Your task to perform on an android device: Search for "dell xps" on costco.com, select the first entry, add it to the cart, then select checkout. Image 0: 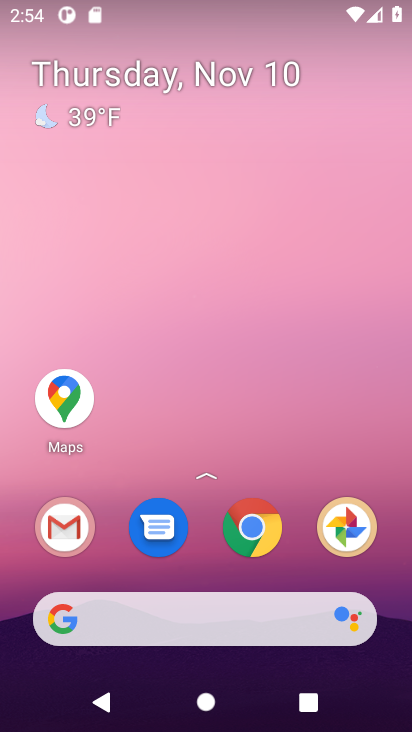
Step 0: drag from (134, 619) to (106, 48)
Your task to perform on an android device: Search for "dell xps" on costco.com, select the first entry, add it to the cart, then select checkout. Image 1: 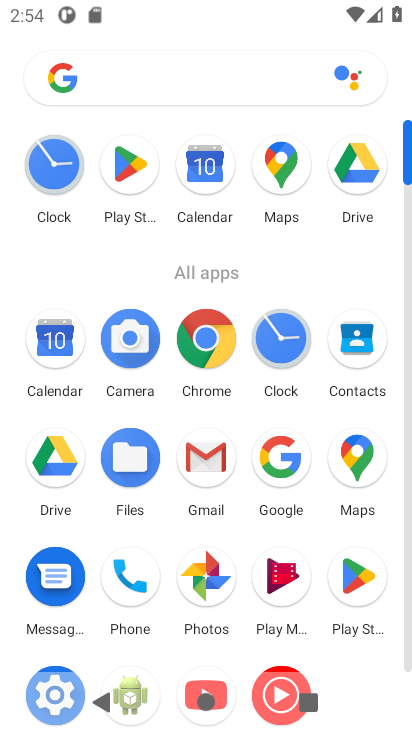
Step 1: click (218, 341)
Your task to perform on an android device: Search for "dell xps" on costco.com, select the first entry, add it to the cart, then select checkout. Image 2: 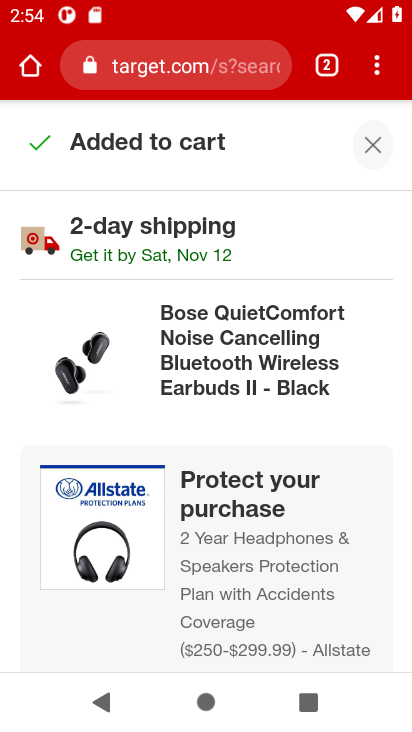
Step 2: click (185, 71)
Your task to perform on an android device: Search for "dell xps" on costco.com, select the first entry, add it to the cart, then select checkout. Image 3: 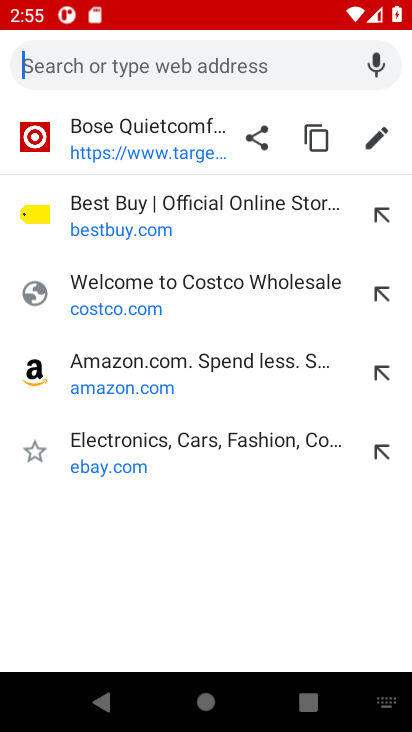
Step 3: type "costco.com"
Your task to perform on an android device: Search for "dell xps" on costco.com, select the first entry, add it to the cart, then select checkout. Image 4: 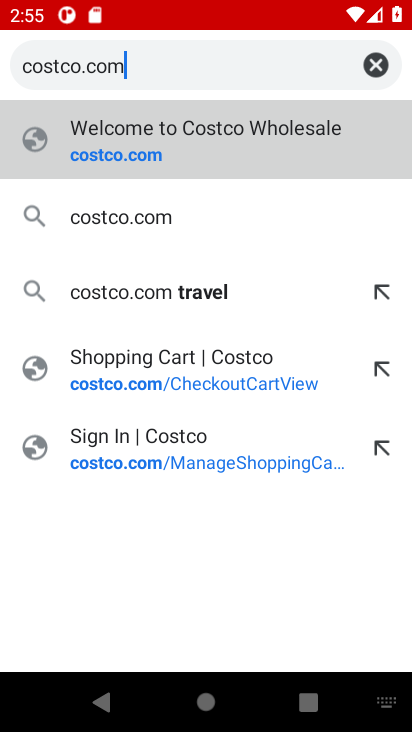
Step 4: press enter
Your task to perform on an android device: Search for "dell xps" on costco.com, select the first entry, add it to the cart, then select checkout. Image 5: 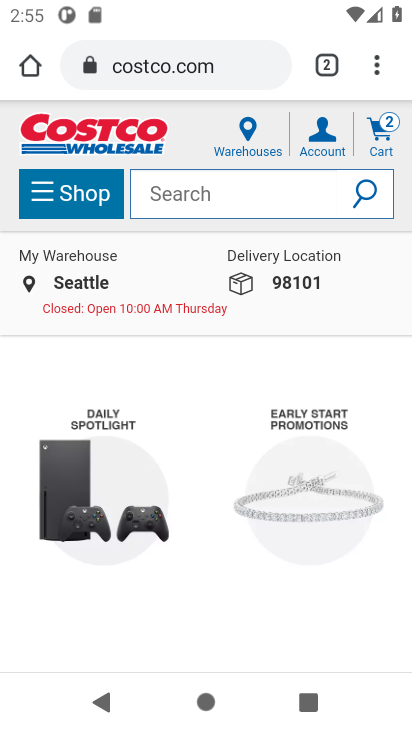
Step 5: drag from (211, 466) to (190, 255)
Your task to perform on an android device: Search for "dell xps" on costco.com, select the first entry, add it to the cart, then select checkout. Image 6: 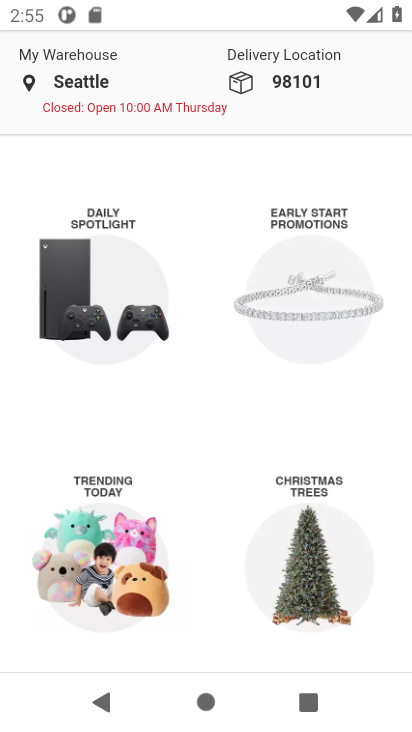
Step 6: drag from (200, 181) to (270, 436)
Your task to perform on an android device: Search for "dell xps" on costco.com, select the first entry, add it to the cart, then select checkout. Image 7: 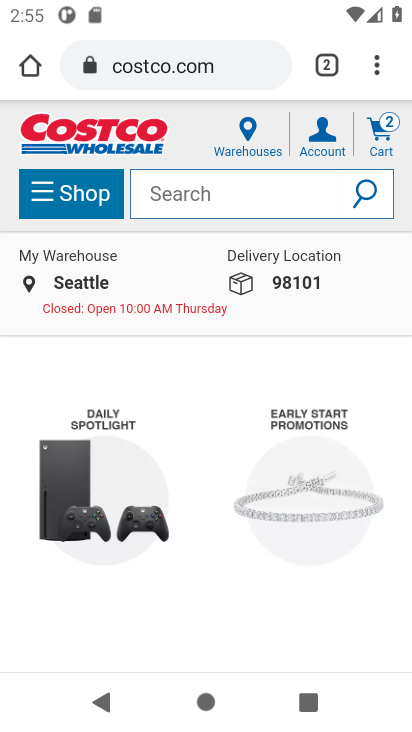
Step 7: click (217, 173)
Your task to perform on an android device: Search for "dell xps" on costco.com, select the first entry, add it to the cart, then select checkout. Image 8: 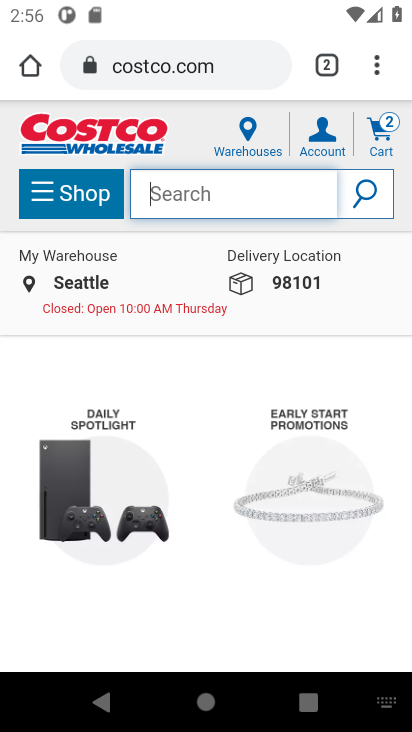
Step 8: type "costco.com"
Your task to perform on an android device: Search for "dell xps" on costco.com, select the first entry, add it to the cart, then select checkout. Image 9: 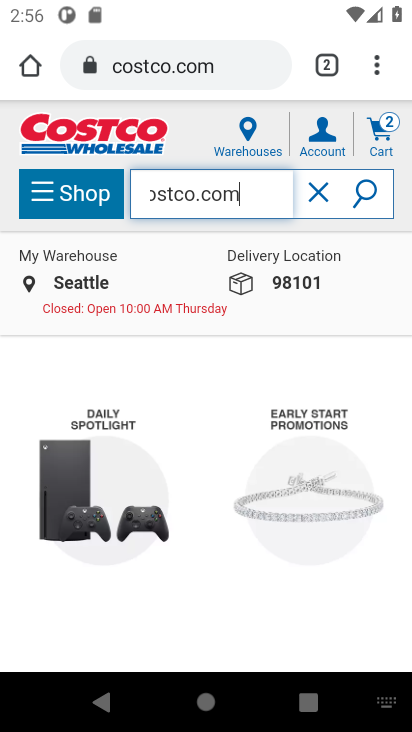
Step 9: press enter
Your task to perform on an android device: Search for "dell xps" on costco.com, select the first entry, add it to the cart, then select checkout. Image 10: 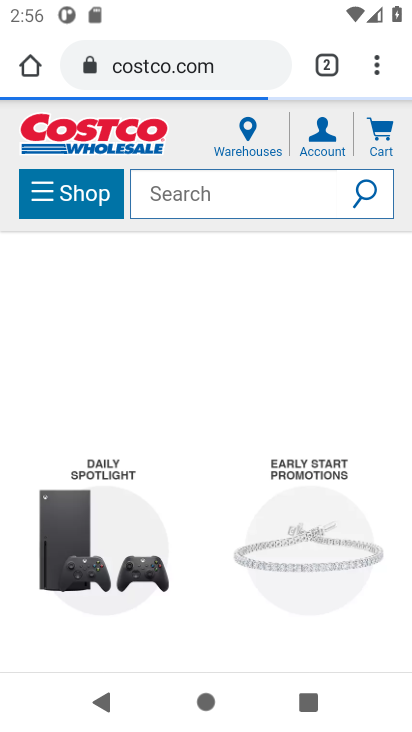
Step 10: click (243, 198)
Your task to perform on an android device: Search for "dell xps" on costco.com, select the first entry, add it to the cart, then select checkout. Image 11: 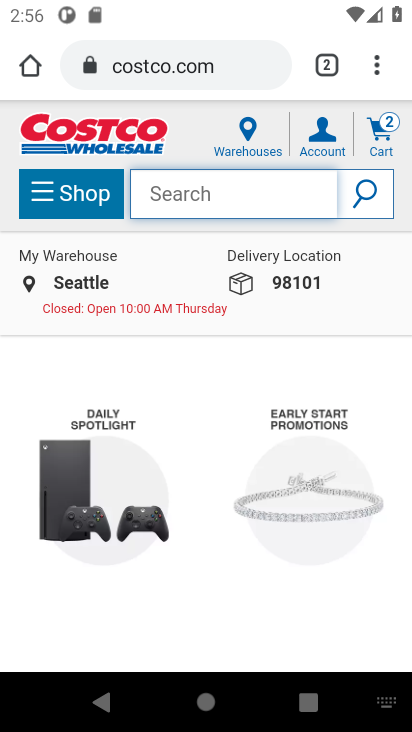
Step 11: type "dell xps"
Your task to perform on an android device: Search for "dell xps" on costco.com, select the first entry, add it to the cart, then select checkout. Image 12: 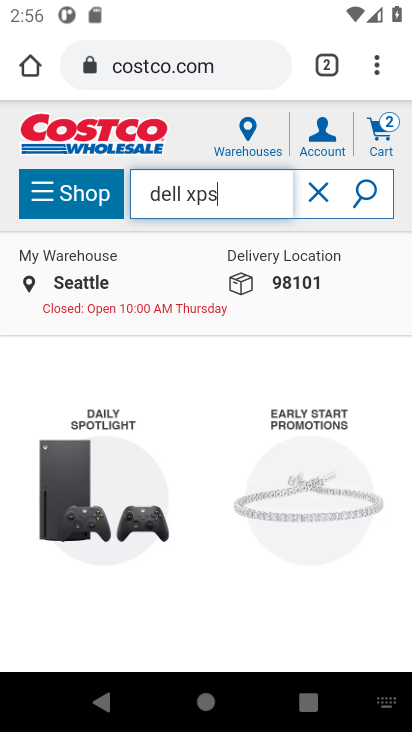
Step 12: press enter
Your task to perform on an android device: Search for "dell xps" on costco.com, select the first entry, add it to the cart, then select checkout. Image 13: 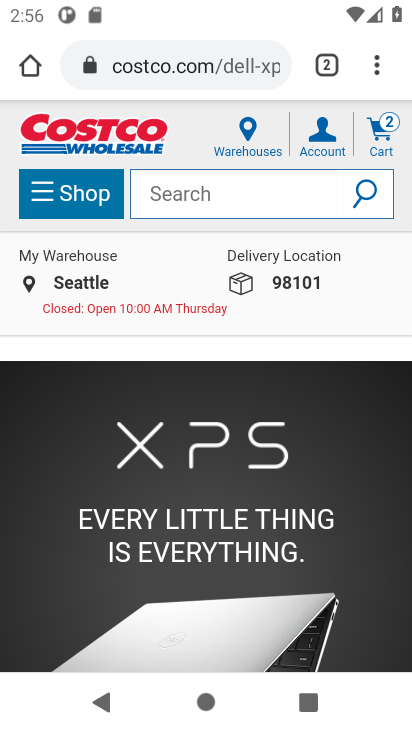
Step 13: drag from (252, 544) to (260, 237)
Your task to perform on an android device: Search for "dell xps" on costco.com, select the first entry, add it to the cart, then select checkout. Image 14: 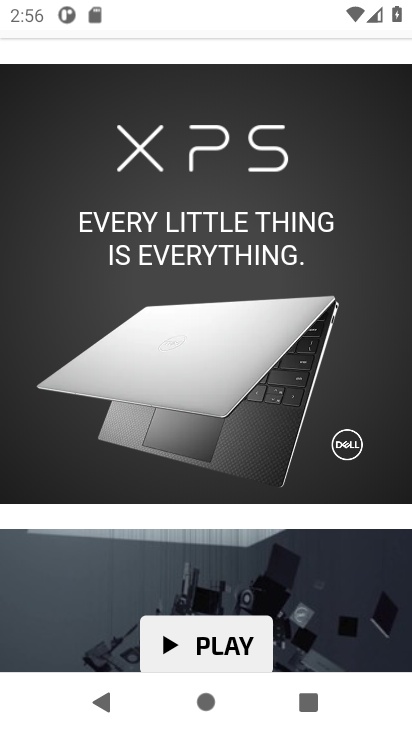
Step 14: click (253, 259)
Your task to perform on an android device: Search for "dell xps" on costco.com, select the first entry, add it to the cart, then select checkout. Image 15: 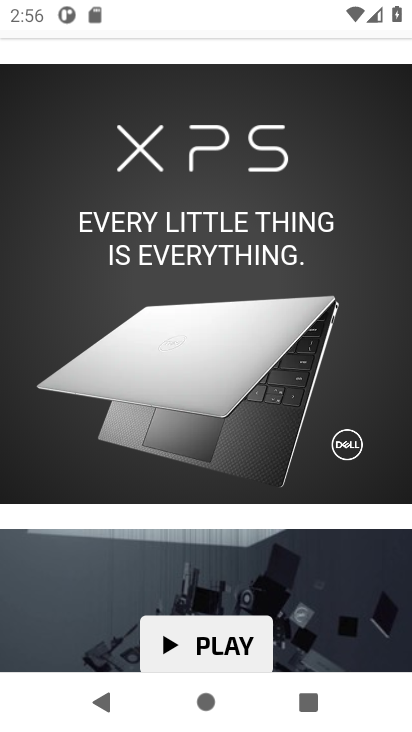
Step 15: click (250, 240)
Your task to perform on an android device: Search for "dell xps" on costco.com, select the first entry, add it to the cart, then select checkout. Image 16: 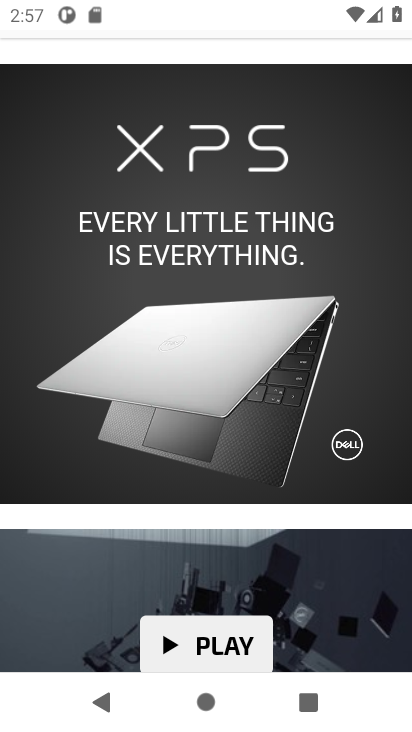
Step 16: click (250, 253)
Your task to perform on an android device: Search for "dell xps" on costco.com, select the first entry, add it to the cart, then select checkout. Image 17: 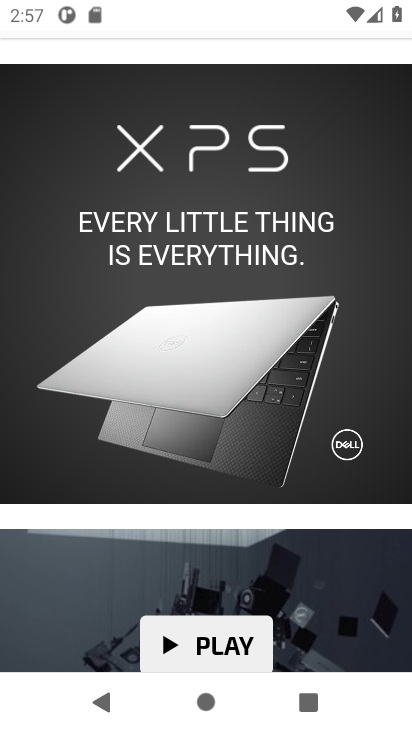
Step 17: click (250, 253)
Your task to perform on an android device: Search for "dell xps" on costco.com, select the first entry, add it to the cart, then select checkout. Image 18: 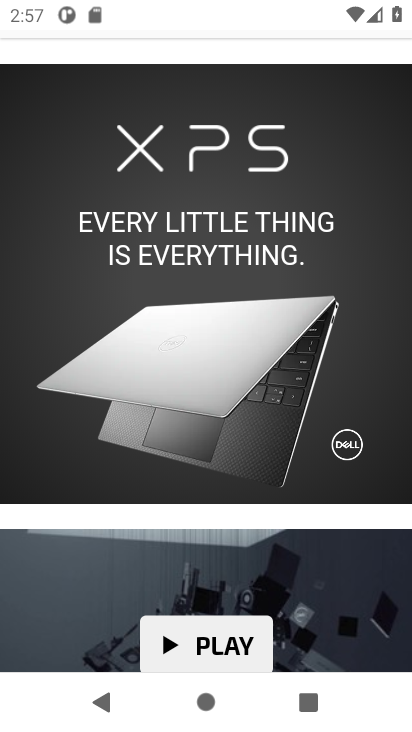
Step 18: click (168, 251)
Your task to perform on an android device: Search for "dell xps" on costco.com, select the first entry, add it to the cart, then select checkout. Image 19: 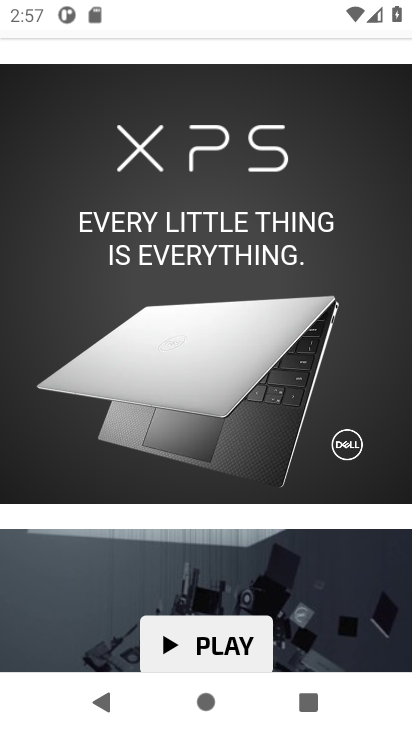
Step 19: drag from (277, 554) to (240, 172)
Your task to perform on an android device: Search for "dell xps" on costco.com, select the first entry, add it to the cart, then select checkout. Image 20: 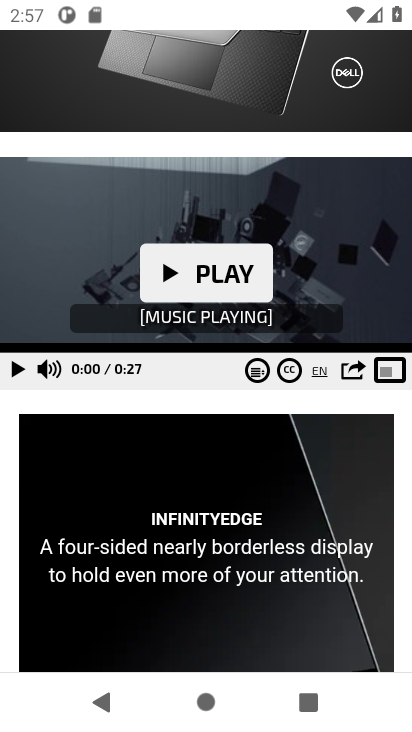
Step 20: drag from (259, 449) to (263, 127)
Your task to perform on an android device: Search for "dell xps" on costco.com, select the first entry, add it to the cart, then select checkout. Image 21: 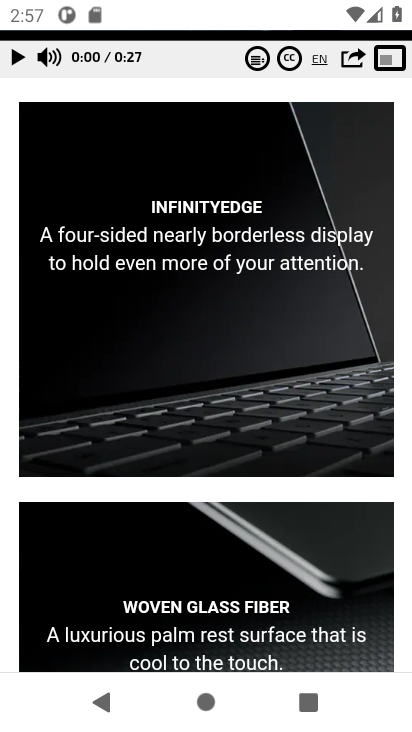
Step 21: drag from (267, 474) to (272, 127)
Your task to perform on an android device: Search for "dell xps" on costco.com, select the first entry, add it to the cart, then select checkout. Image 22: 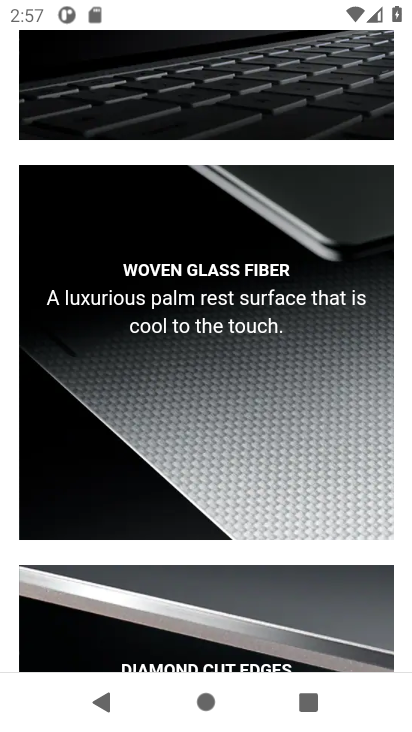
Step 22: drag from (211, 463) to (218, 123)
Your task to perform on an android device: Search for "dell xps" on costco.com, select the first entry, add it to the cart, then select checkout. Image 23: 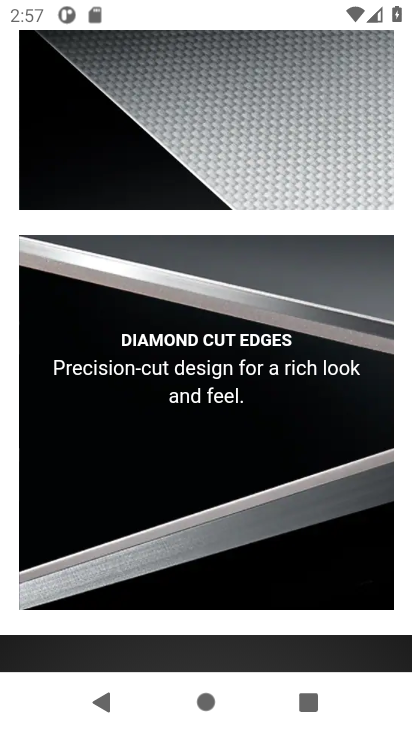
Step 23: drag from (155, 550) to (197, 134)
Your task to perform on an android device: Search for "dell xps" on costco.com, select the first entry, add it to the cart, then select checkout. Image 24: 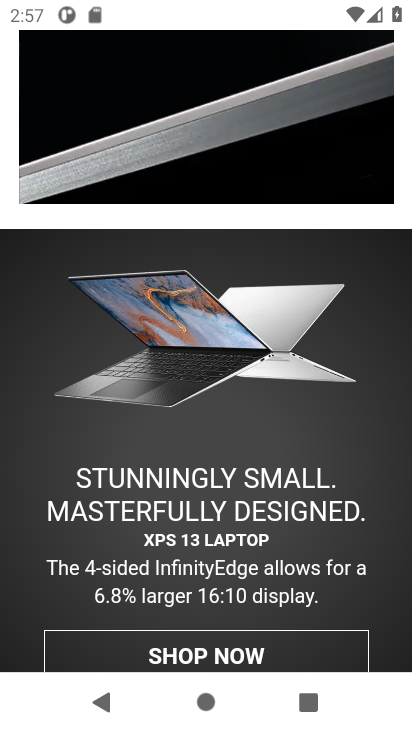
Step 24: drag from (206, 527) to (202, 204)
Your task to perform on an android device: Search for "dell xps" on costco.com, select the first entry, add it to the cart, then select checkout. Image 25: 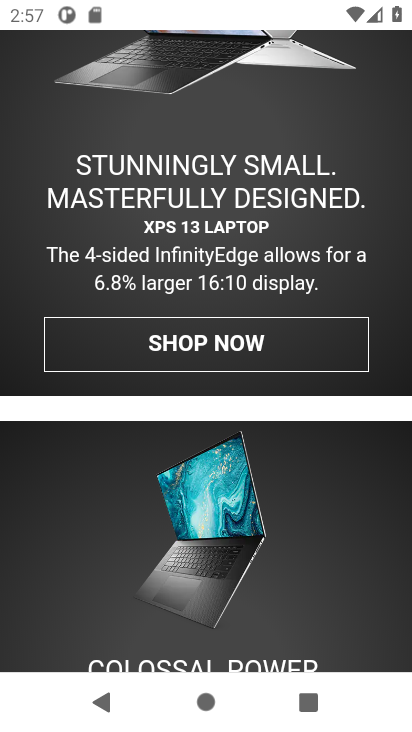
Step 25: click (161, 358)
Your task to perform on an android device: Search for "dell xps" on costco.com, select the first entry, add it to the cart, then select checkout. Image 26: 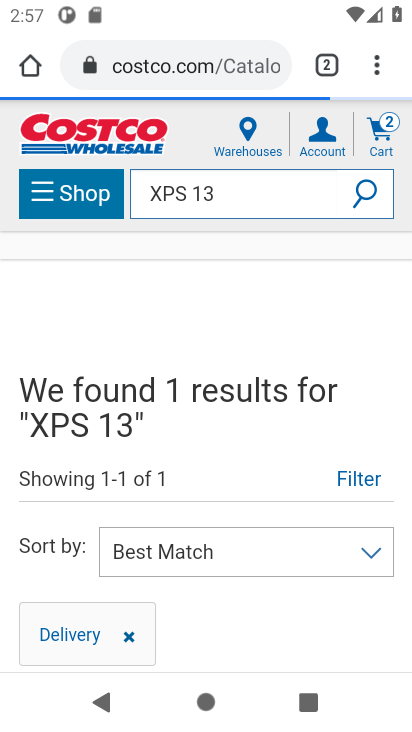
Step 26: drag from (241, 554) to (225, 258)
Your task to perform on an android device: Search for "dell xps" on costco.com, select the first entry, add it to the cart, then select checkout. Image 27: 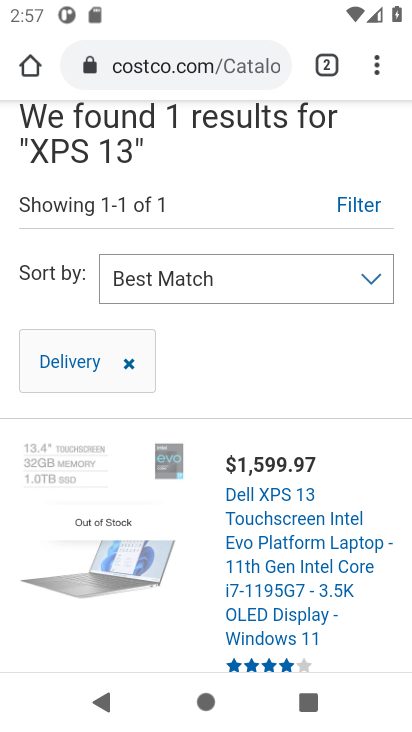
Step 27: drag from (272, 542) to (242, 267)
Your task to perform on an android device: Search for "dell xps" on costco.com, select the first entry, add it to the cart, then select checkout. Image 28: 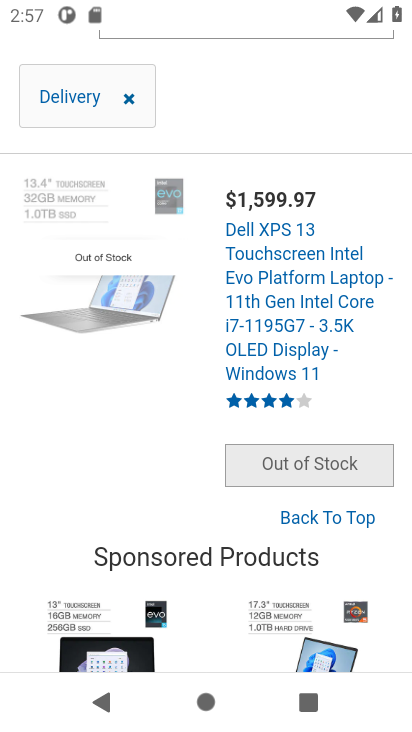
Step 28: click (262, 257)
Your task to perform on an android device: Search for "dell xps" on costco.com, select the first entry, add it to the cart, then select checkout. Image 29: 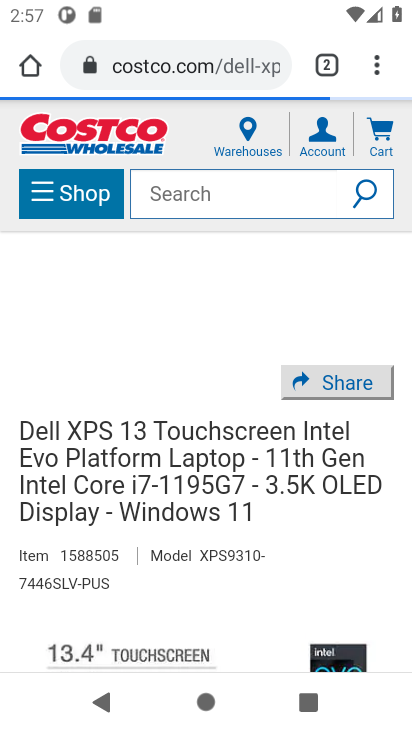
Step 29: task complete